Your task to perform on an android device: turn on location history Image 0: 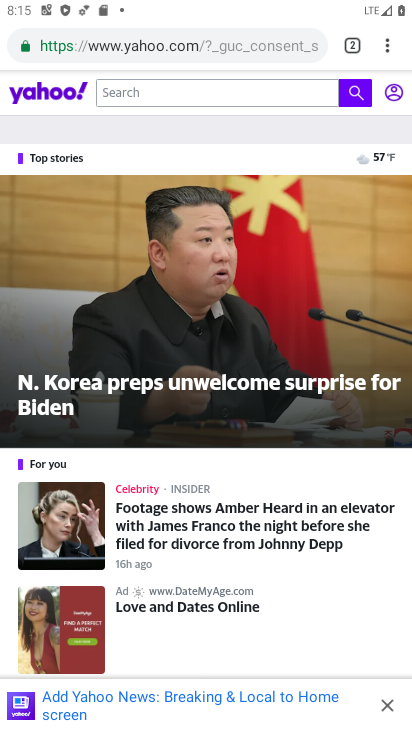
Step 0: press home button
Your task to perform on an android device: turn on location history Image 1: 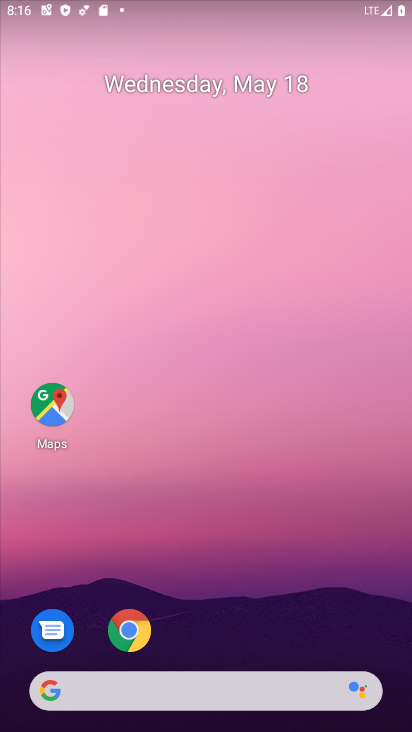
Step 1: click (48, 407)
Your task to perform on an android device: turn on location history Image 2: 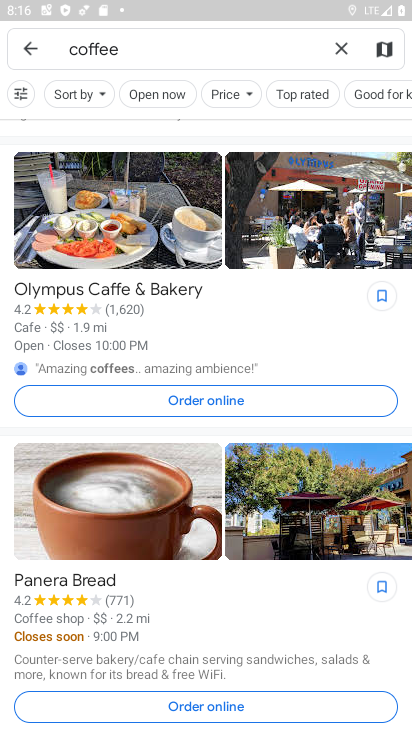
Step 2: click (33, 46)
Your task to perform on an android device: turn on location history Image 3: 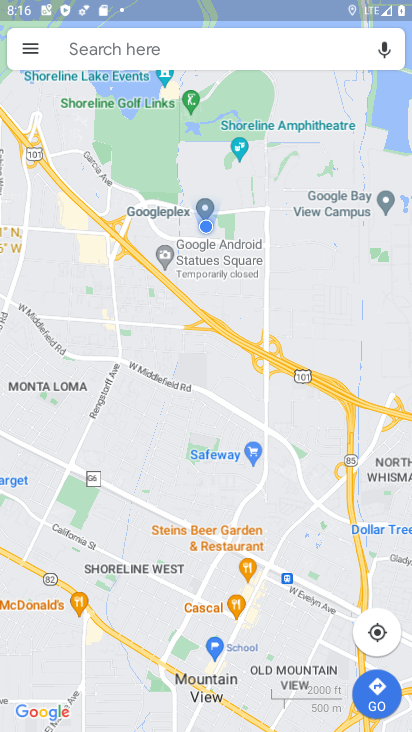
Step 3: click (33, 48)
Your task to perform on an android device: turn on location history Image 4: 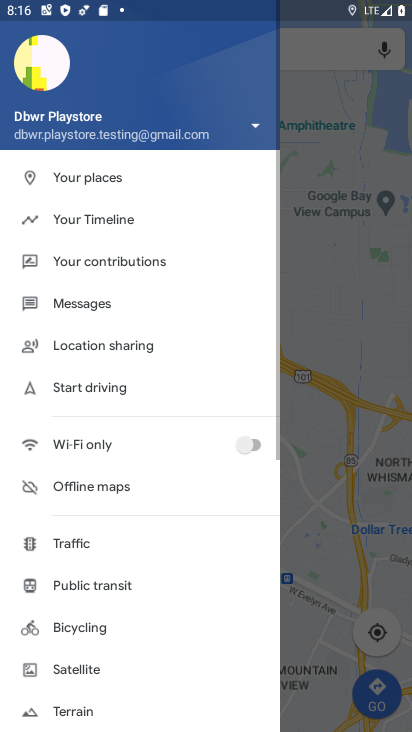
Step 4: click (131, 225)
Your task to perform on an android device: turn on location history Image 5: 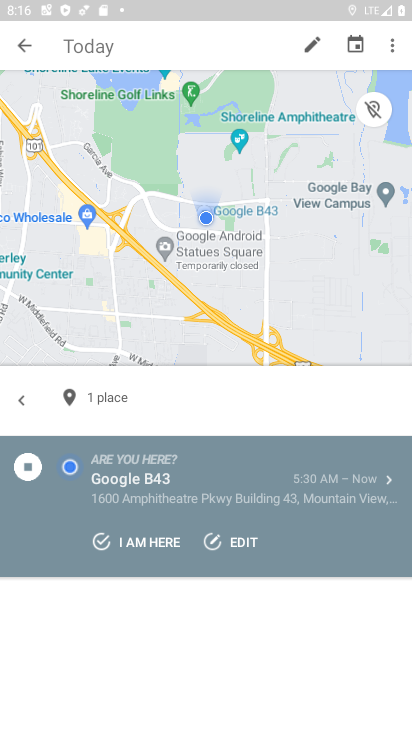
Step 5: click (389, 48)
Your task to perform on an android device: turn on location history Image 6: 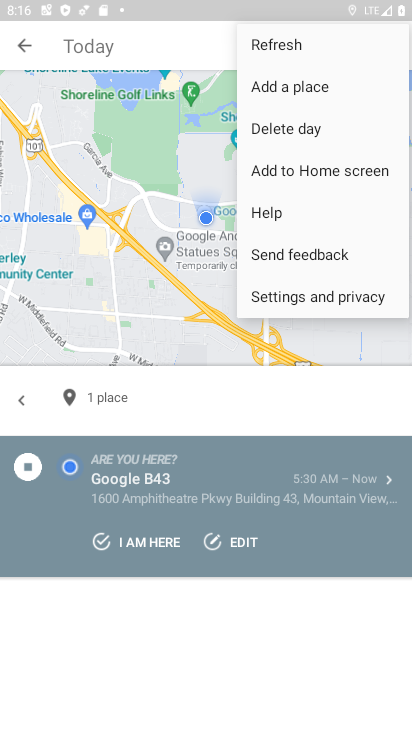
Step 6: click (286, 299)
Your task to perform on an android device: turn on location history Image 7: 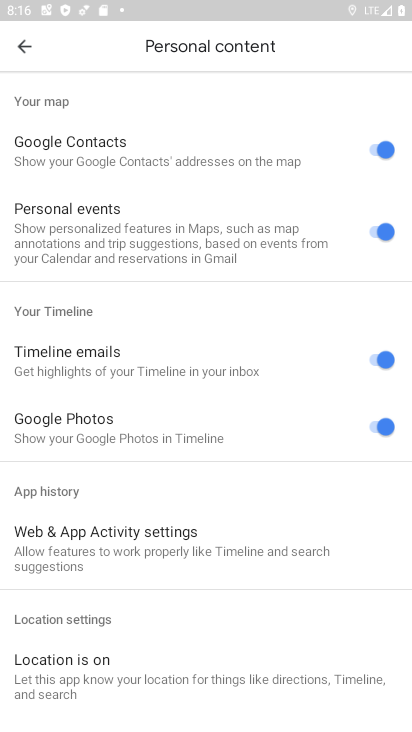
Step 7: drag from (180, 634) to (236, 429)
Your task to perform on an android device: turn on location history Image 8: 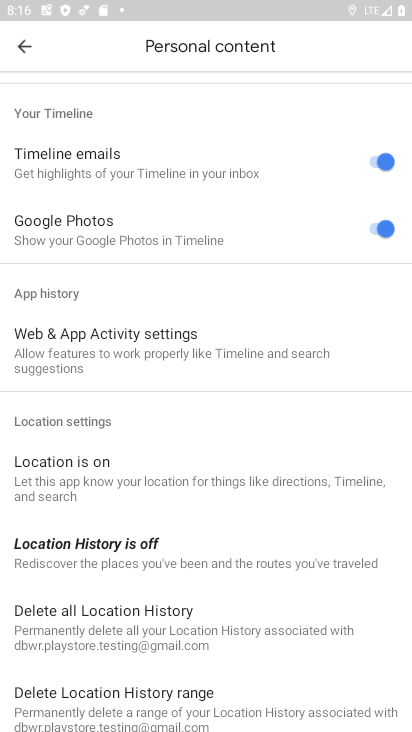
Step 8: click (165, 547)
Your task to perform on an android device: turn on location history Image 9: 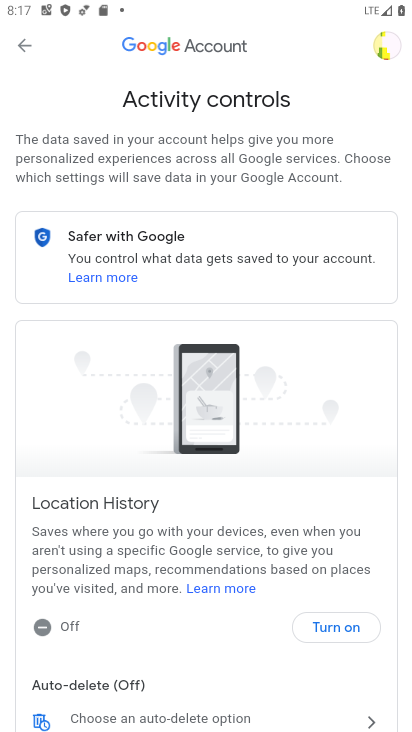
Step 9: click (350, 631)
Your task to perform on an android device: turn on location history Image 10: 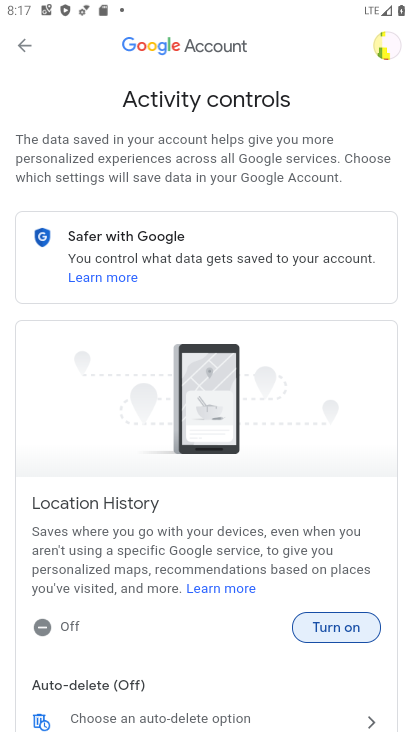
Step 10: click (335, 627)
Your task to perform on an android device: turn on location history Image 11: 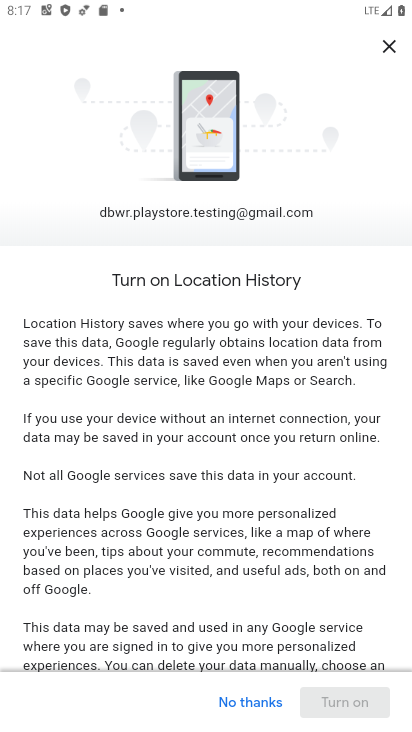
Step 11: drag from (231, 608) to (355, 78)
Your task to perform on an android device: turn on location history Image 12: 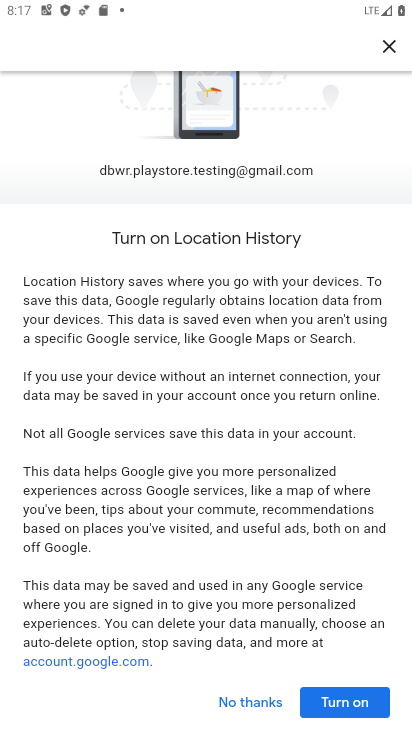
Step 12: click (335, 705)
Your task to perform on an android device: turn on location history Image 13: 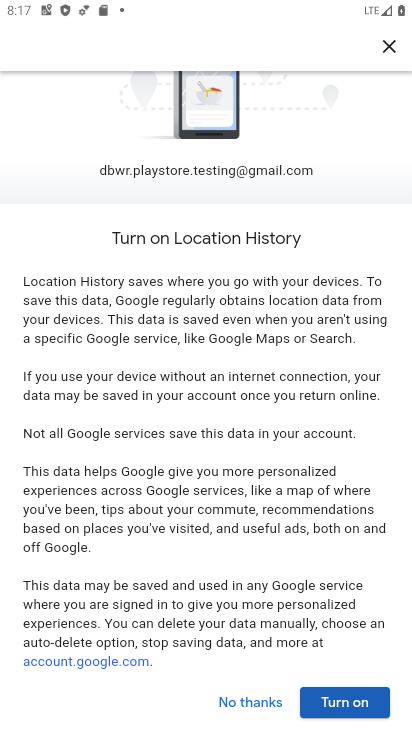
Step 13: click (344, 703)
Your task to perform on an android device: turn on location history Image 14: 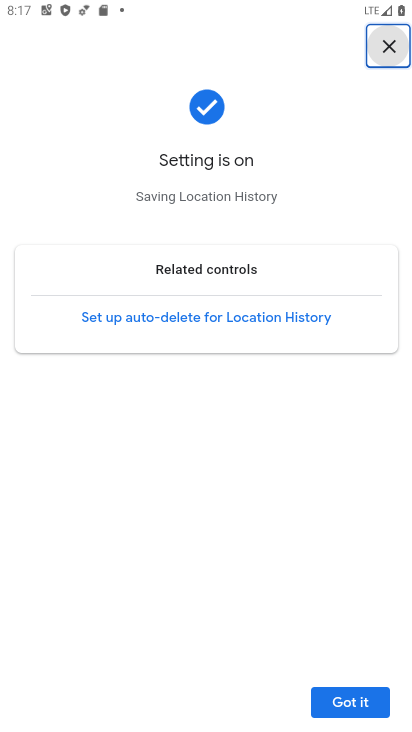
Step 14: click (359, 697)
Your task to perform on an android device: turn on location history Image 15: 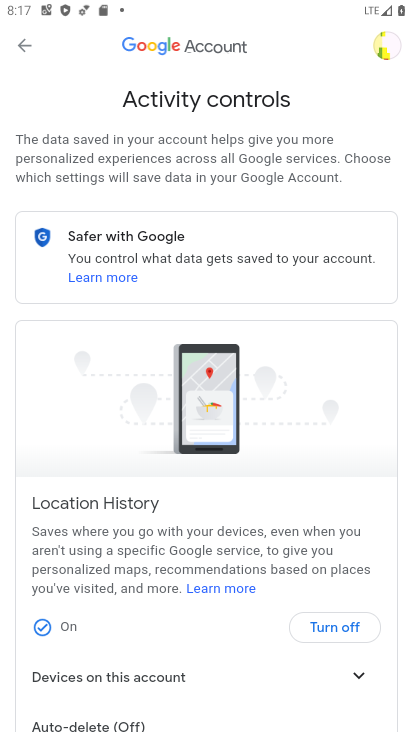
Step 15: task complete